Your task to perform on an android device: Open Google Chrome and open the bookmarks view Image 0: 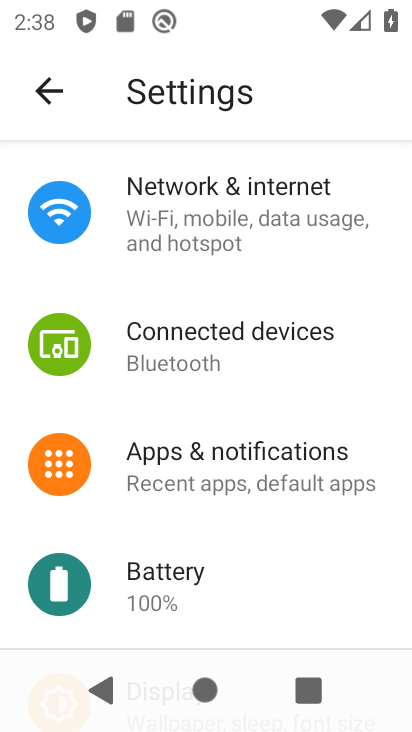
Step 0: press home button
Your task to perform on an android device: Open Google Chrome and open the bookmarks view Image 1: 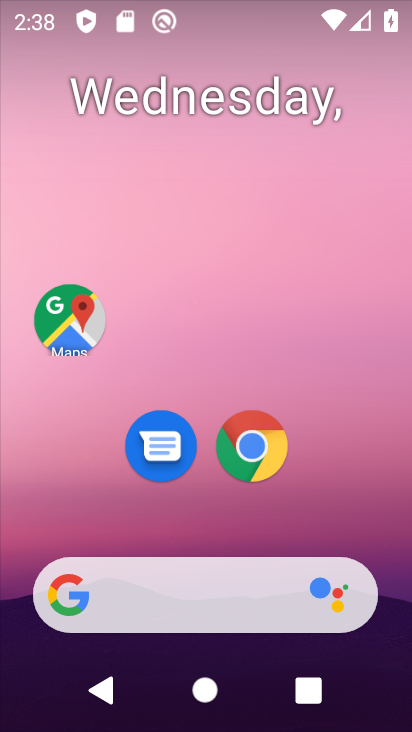
Step 1: click (266, 458)
Your task to perform on an android device: Open Google Chrome and open the bookmarks view Image 2: 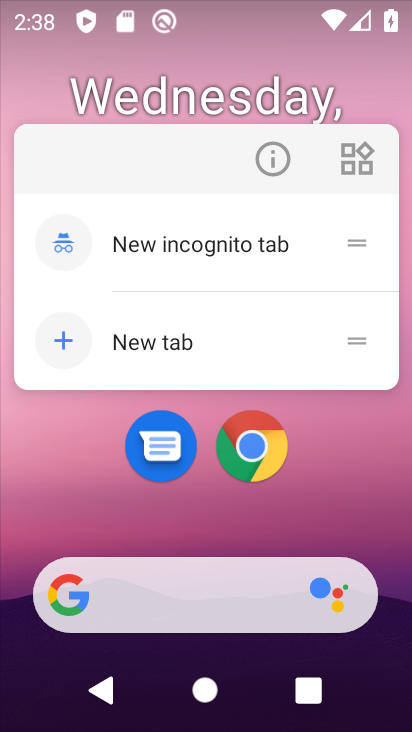
Step 2: click (377, 451)
Your task to perform on an android device: Open Google Chrome and open the bookmarks view Image 3: 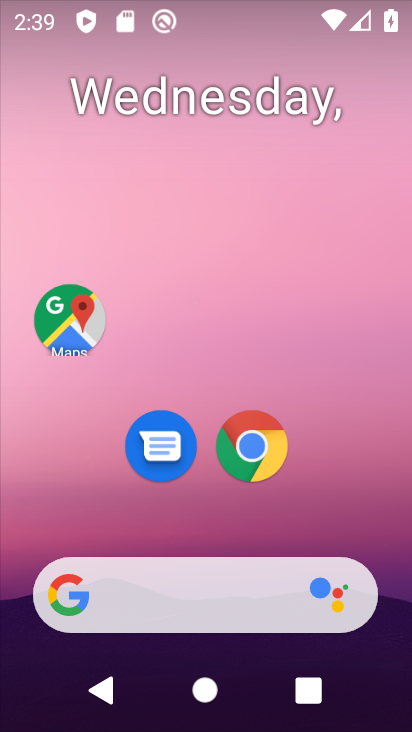
Step 3: click (248, 433)
Your task to perform on an android device: Open Google Chrome and open the bookmarks view Image 4: 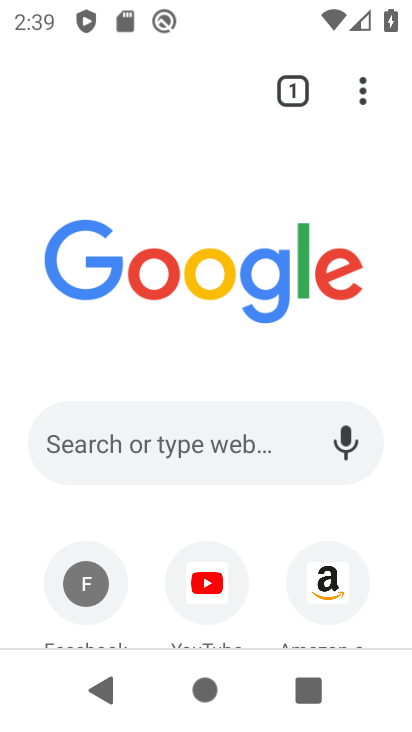
Step 4: click (367, 95)
Your task to perform on an android device: Open Google Chrome and open the bookmarks view Image 5: 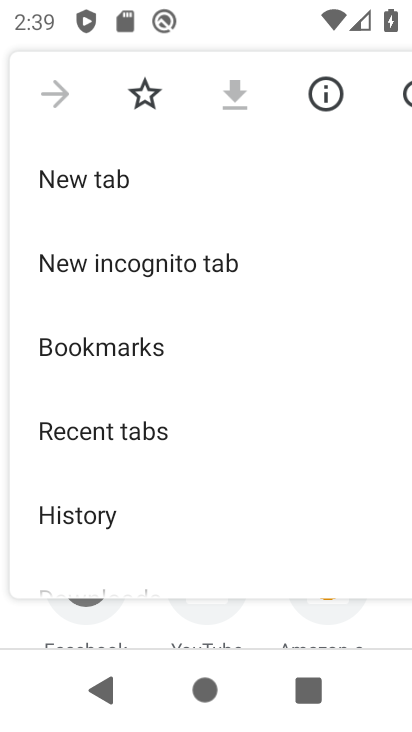
Step 5: click (141, 340)
Your task to perform on an android device: Open Google Chrome and open the bookmarks view Image 6: 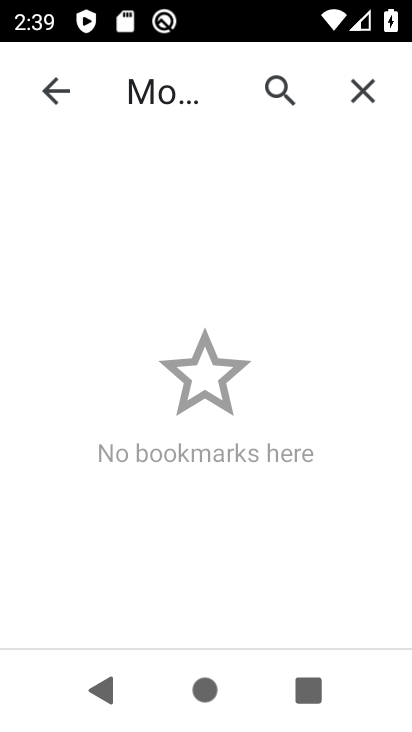
Step 6: task complete